Your task to perform on an android device: Open Google Chrome and click the shortcut for Amazon.com Image 0: 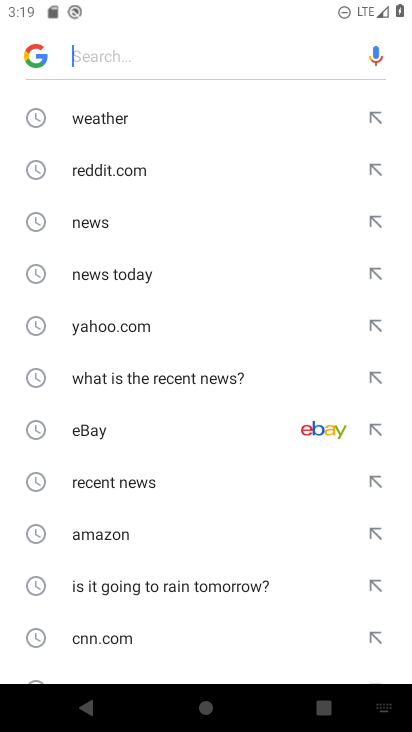
Step 0: press home button
Your task to perform on an android device: Open Google Chrome and click the shortcut for Amazon.com Image 1: 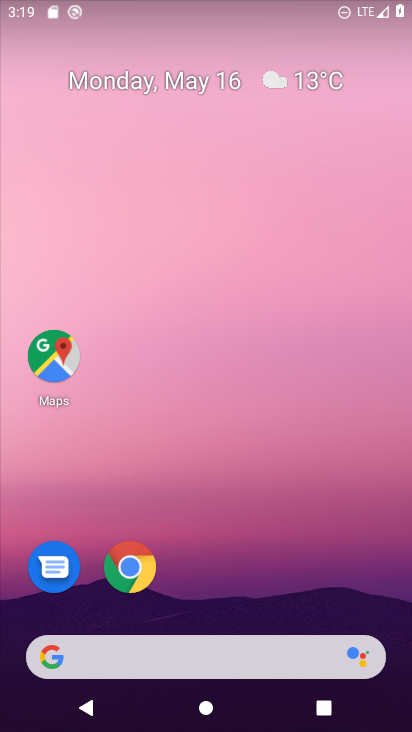
Step 1: click (146, 564)
Your task to perform on an android device: Open Google Chrome and click the shortcut for Amazon.com Image 2: 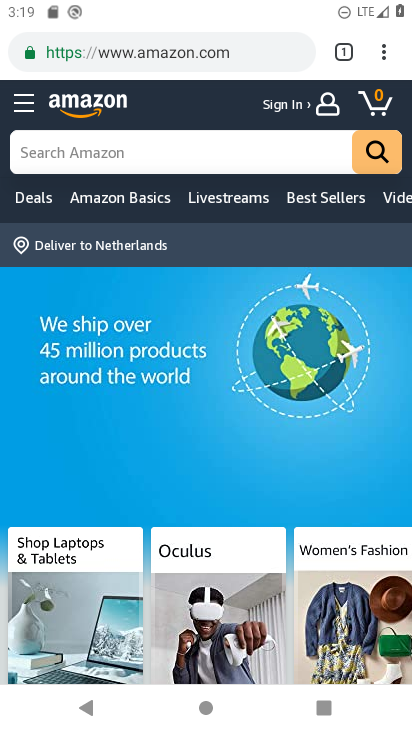
Step 2: task complete